Your task to perform on an android device: empty trash in the gmail app Image 0: 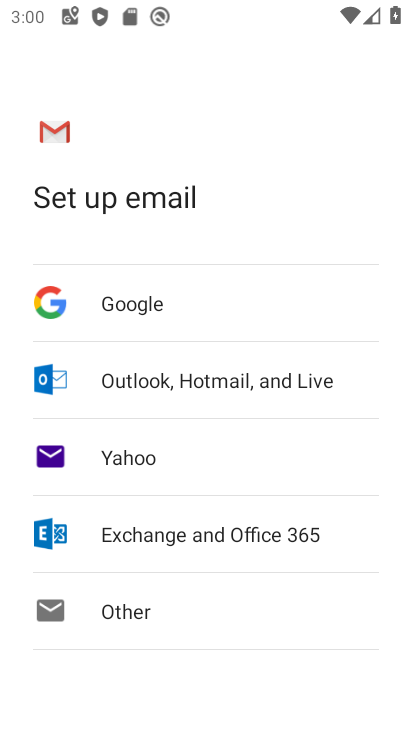
Step 0: press home button
Your task to perform on an android device: empty trash in the gmail app Image 1: 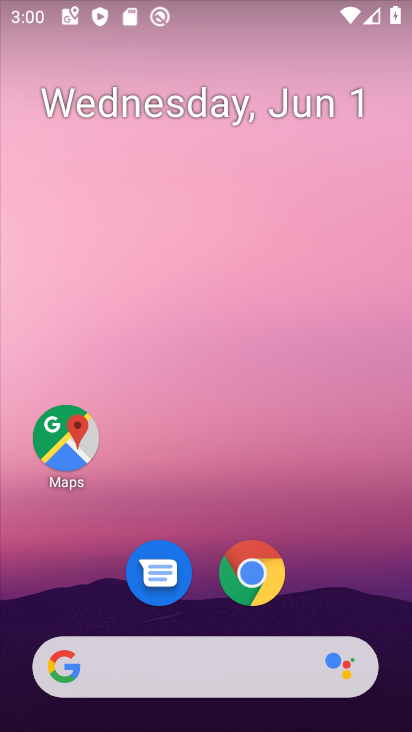
Step 1: drag from (149, 691) to (190, 153)
Your task to perform on an android device: empty trash in the gmail app Image 2: 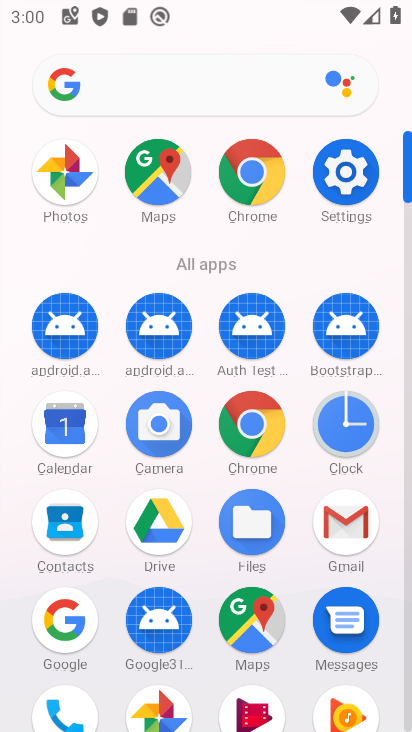
Step 2: click (348, 529)
Your task to perform on an android device: empty trash in the gmail app Image 3: 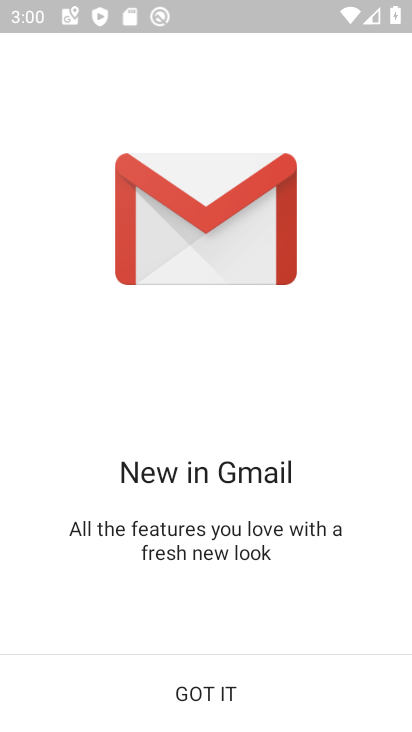
Step 3: click (208, 704)
Your task to perform on an android device: empty trash in the gmail app Image 4: 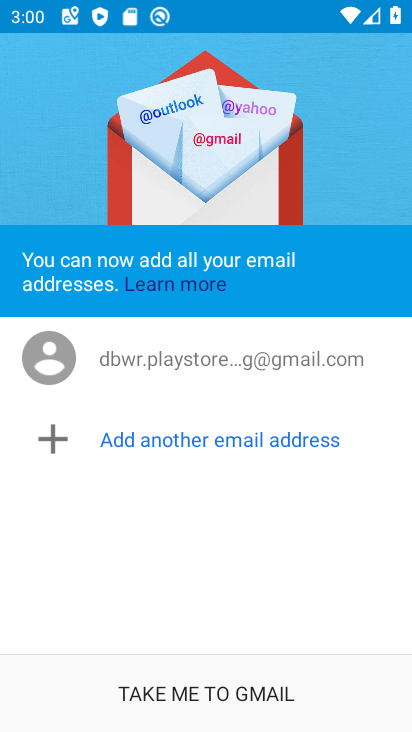
Step 4: click (197, 699)
Your task to perform on an android device: empty trash in the gmail app Image 5: 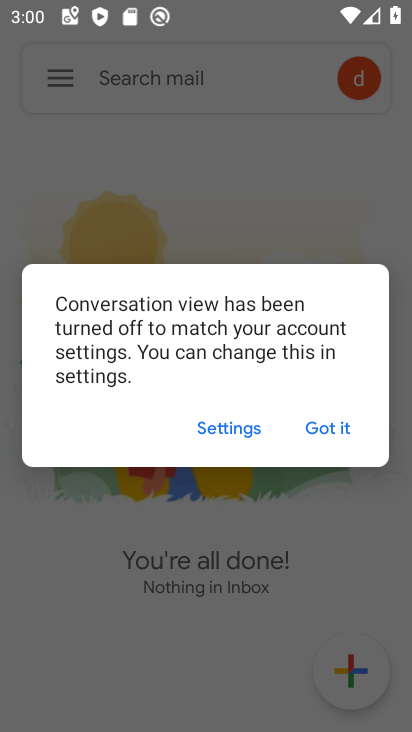
Step 5: click (326, 427)
Your task to perform on an android device: empty trash in the gmail app Image 6: 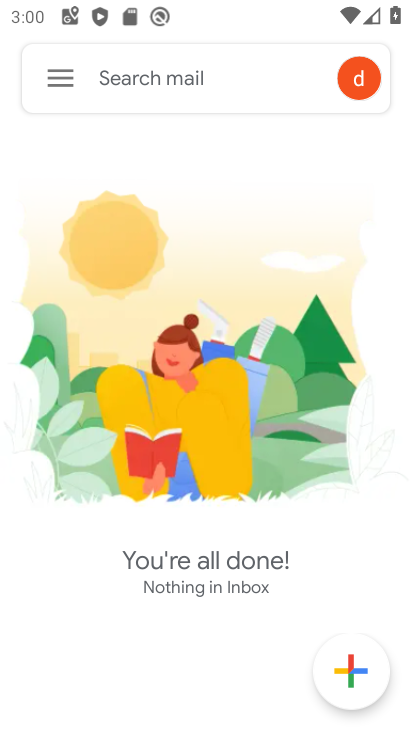
Step 6: click (67, 78)
Your task to perform on an android device: empty trash in the gmail app Image 7: 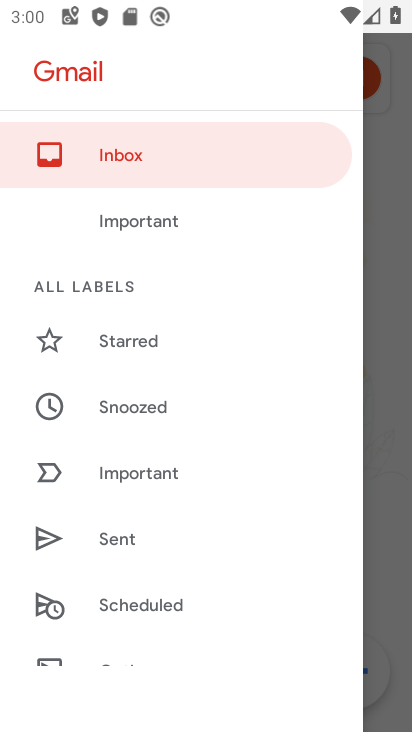
Step 7: drag from (194, 620) to (269, 186)
Your task to perform on an android device: empty trash in the gmail app Image 8: 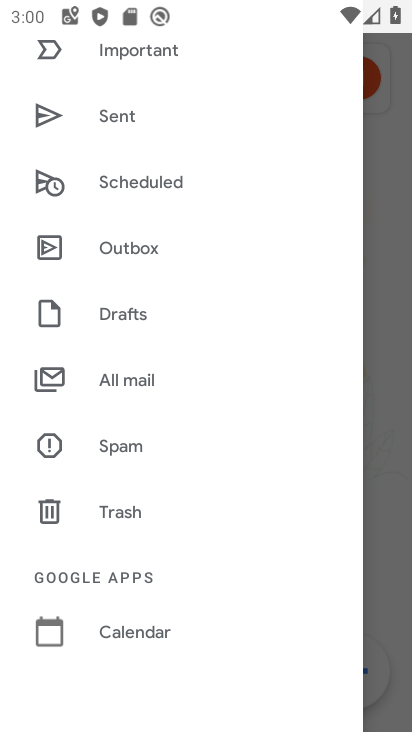
Step 8: click (125, 518)
Your task to perform on an android device: empty trash in the gmail app Image 9: 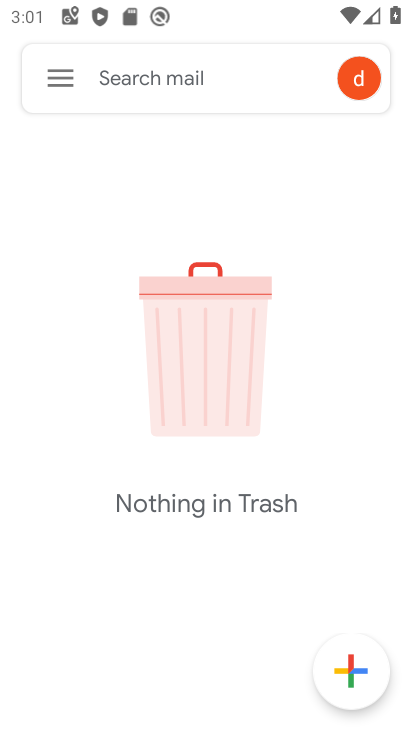
Step 9: task complete